Your task to perform on an android device: turn on the 12-hour format for clock Image 0: 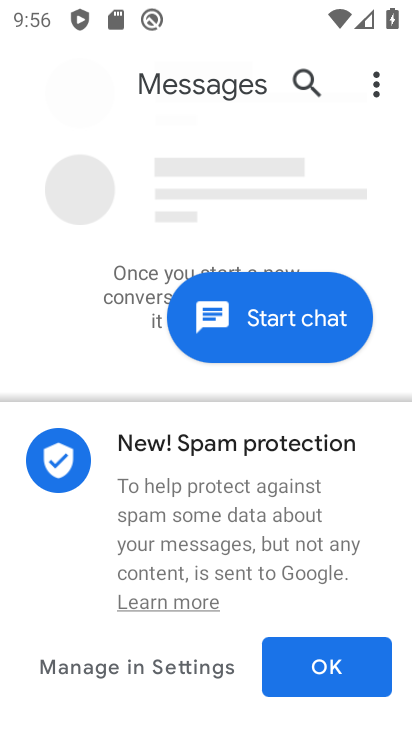
Step 0: press home button
Your task to perform on an android device: turn on the 12-hour format for clock Image 1: 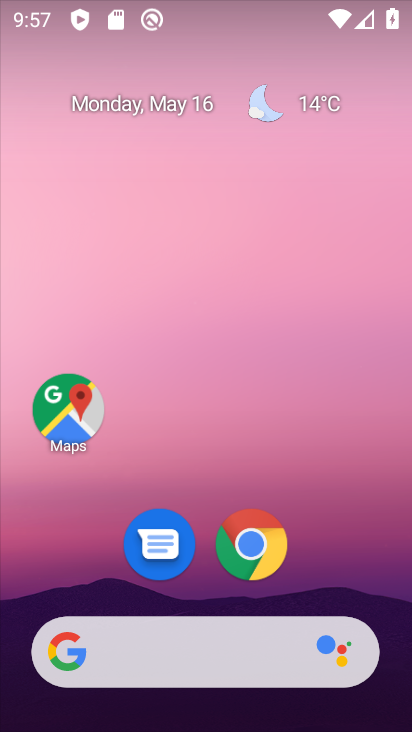
Step 1: drag from (308, 420) to (269, 68)
Your task to perform on an android device: turn on the 12-hour format for clock Image 2: 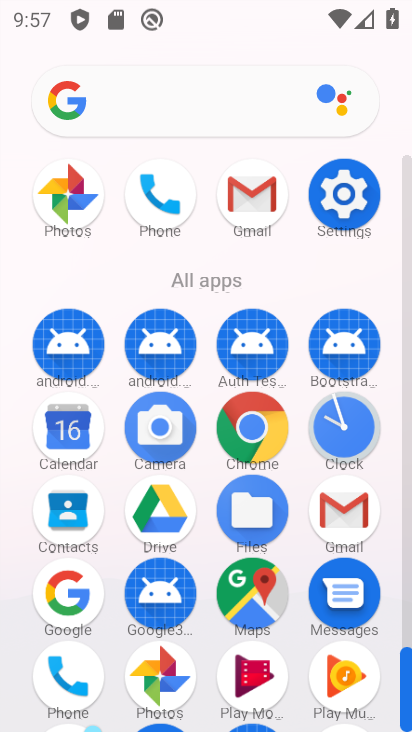
Step 2: click (335, 438)
Your task to perform on an android device: turn on the 12-hour format for clock Image 3: 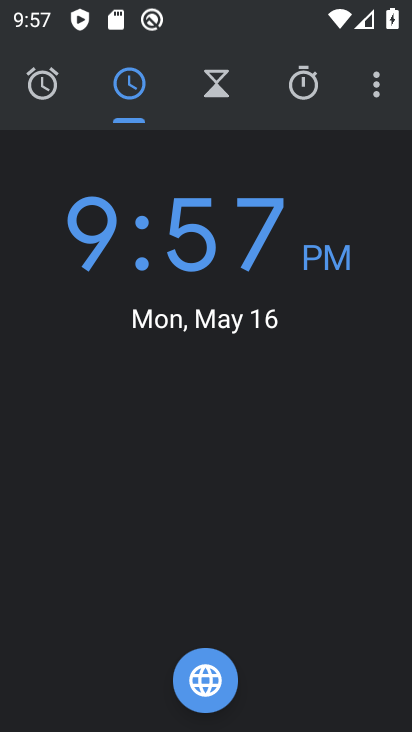
Step 3: click (366, 82)
Your task to perform on an android device: turn on the 12-hour format for clock Image 4: 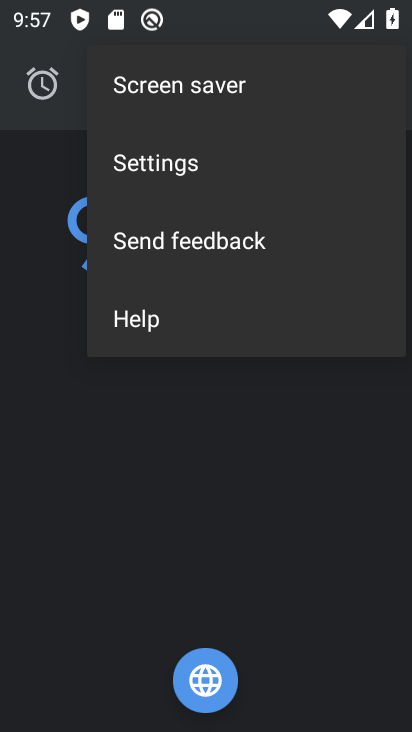
Step 4: click (185, 169)
Your task to perform on an android device: turn on the 12-hour format for clock Image 5: 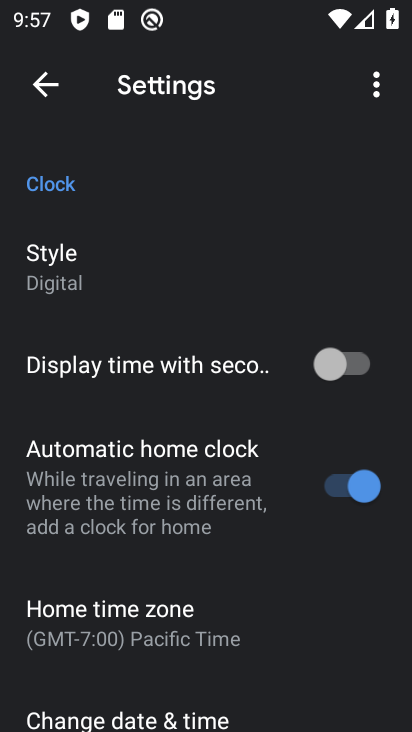
Step 5: drag from (180, 602) to (205, 295)
Your task to perform on an android device: turn on the 12-hour format for clock Image 6: 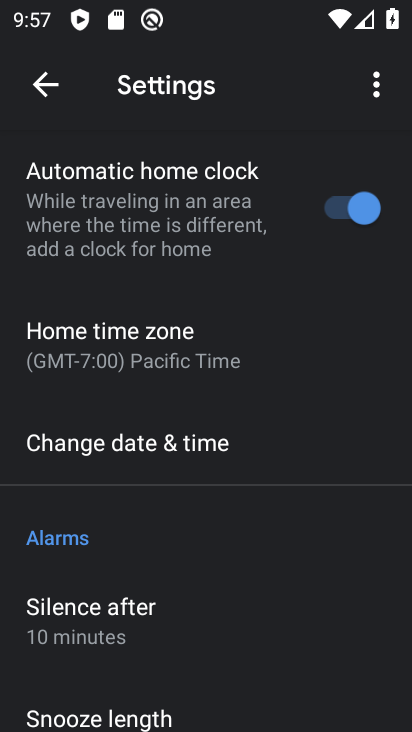
Step 6: click (141, 465)
Your task to perform on an android device: turn on the 12-hour format for clock Image 7: 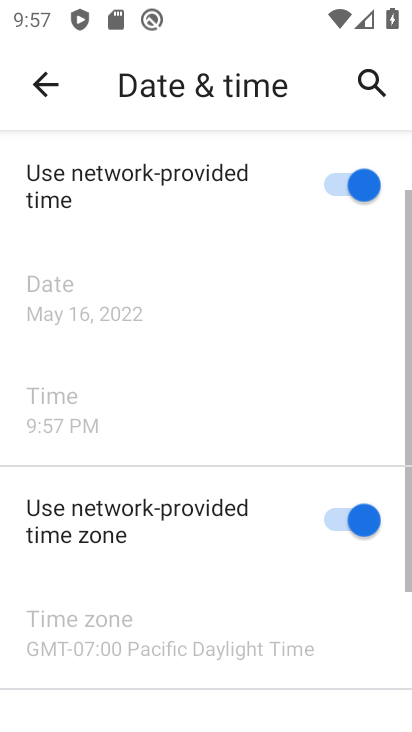
Step 7: task complete